Your task to perform on an android device: Go to notification settings Image 0: 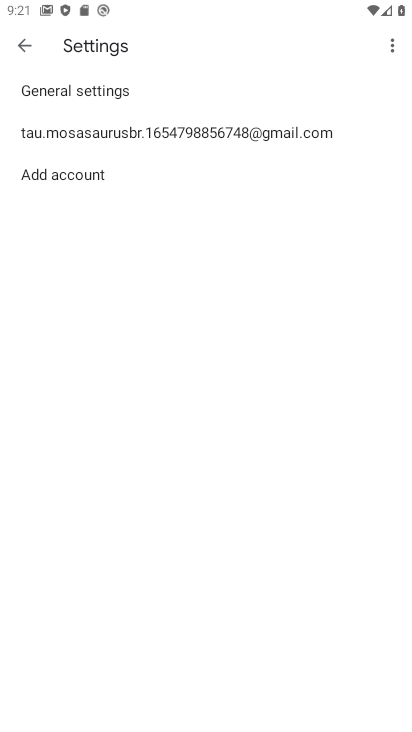
Step 0: press home button
Your task to perform on an android device: Go to notification settings Image 1: 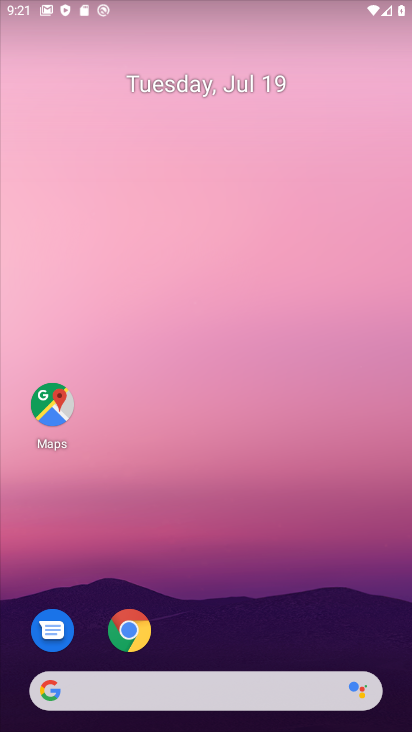
Step 1: drag from (223, 636) to (244, 0)
Your task to perform on an android device: Go to notification settings Image 2: 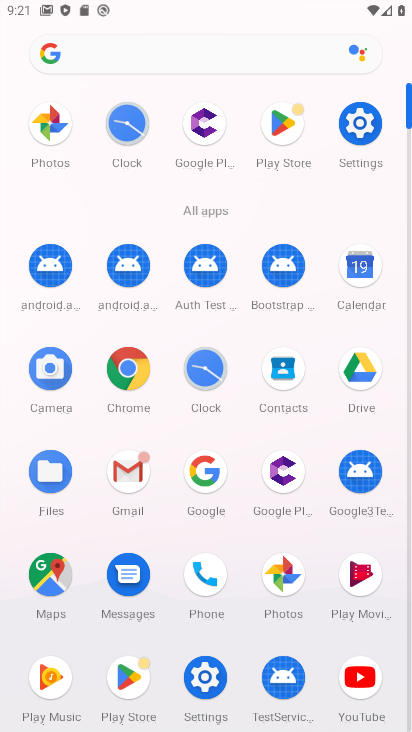
Step 2: click (203, 673)
Your task to perform on an android device: Go to notification settings Image 3: 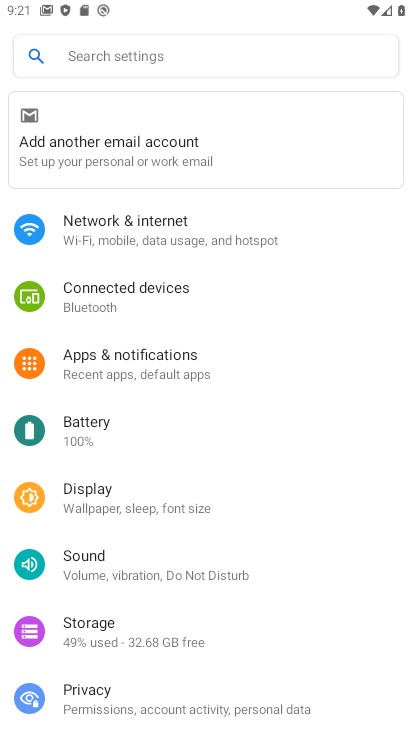
Step 3: click (156, 372)
Your task to perform on an android device: Go to notification settings Image 4: 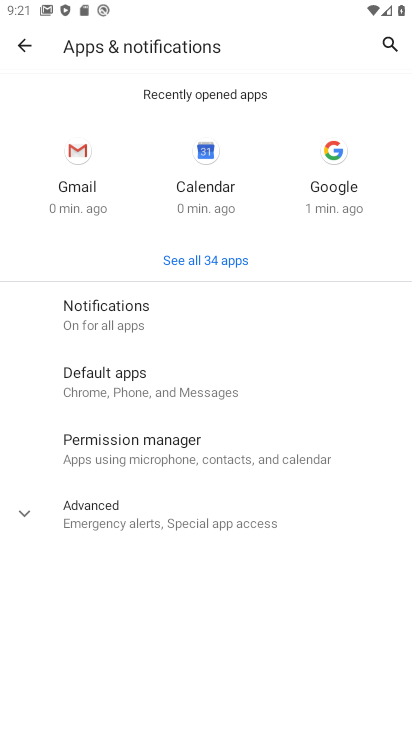
Step 4: click (146, 309)
Your task to perform on an android device: Go to notification settings Image 5: 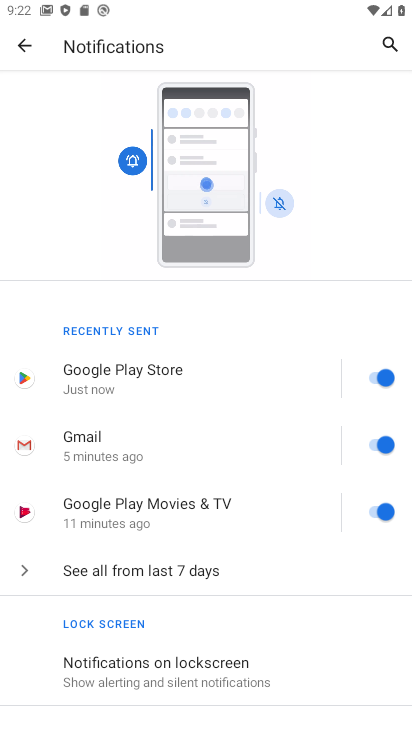
Step 5: task complete